Your task to perform on an android device: Open eBay Image 0: 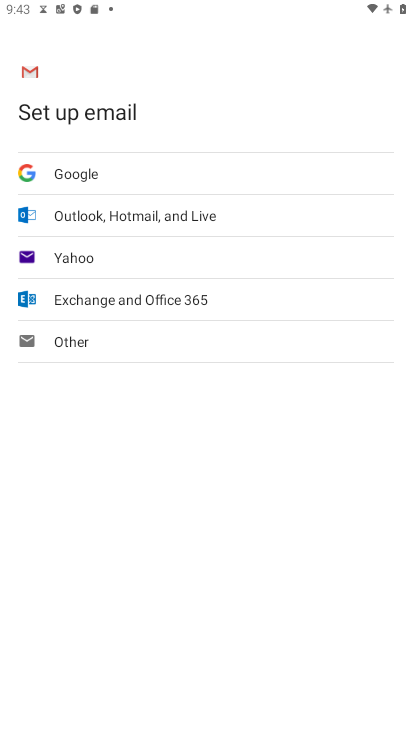
Step 0: press home button
Your task to perform on an android device: Open eBay Image 1: 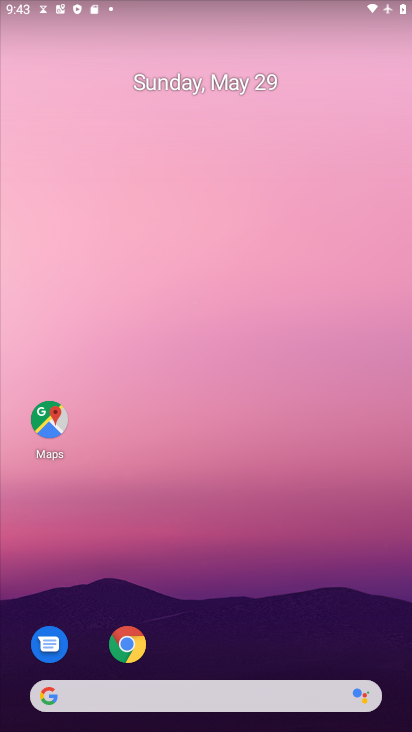
Step 1: click (124, 638)
Your task to perform on an android device: Open eBay Image 2: 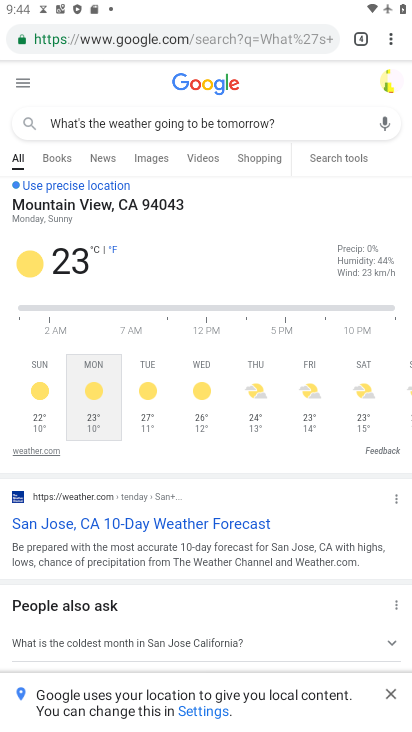
Step 2: click (392, 30)
Your task to perform on an android device: Open eBay Image 3: 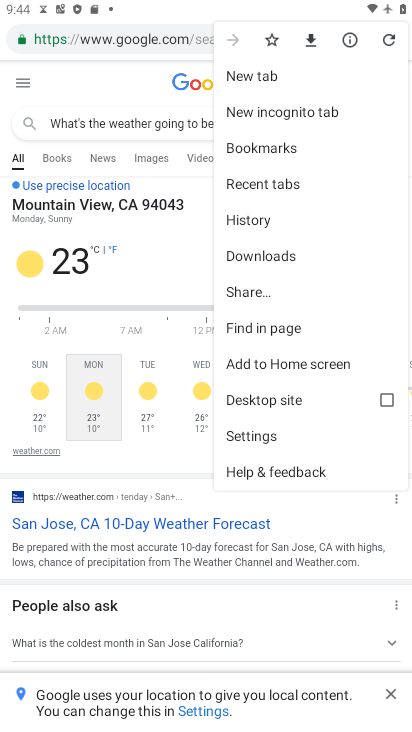
Step 3: click (245, 76)
Your task to perform on an android device: Open eBay Image 4: 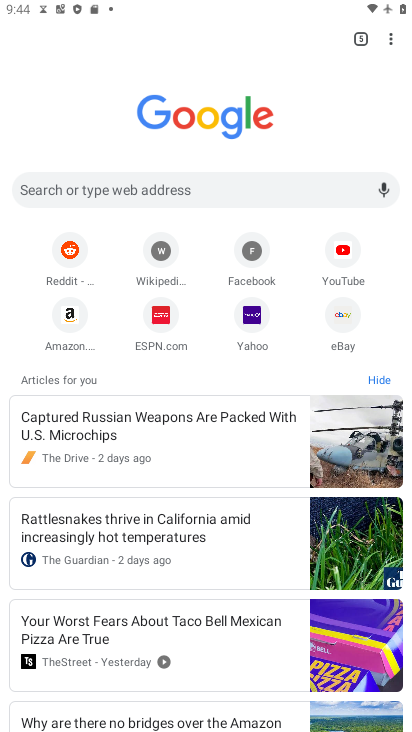
Step 4: click (119, 178)
Your task to perform on an android device: Open eBay Image 5: 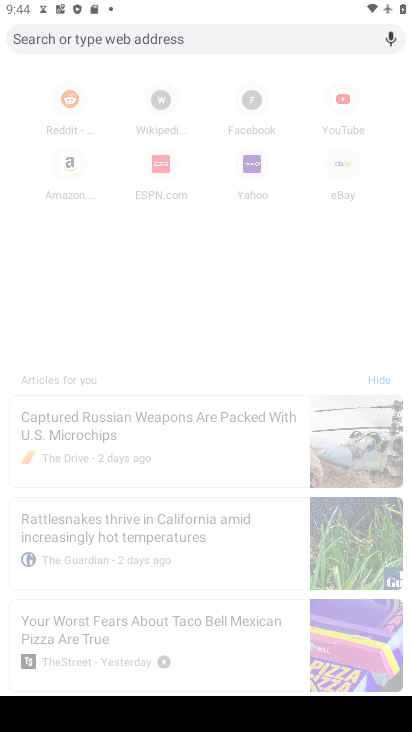
Step 5: type "eBay"
Your task to perform on an android device: Open eBay Image 6: 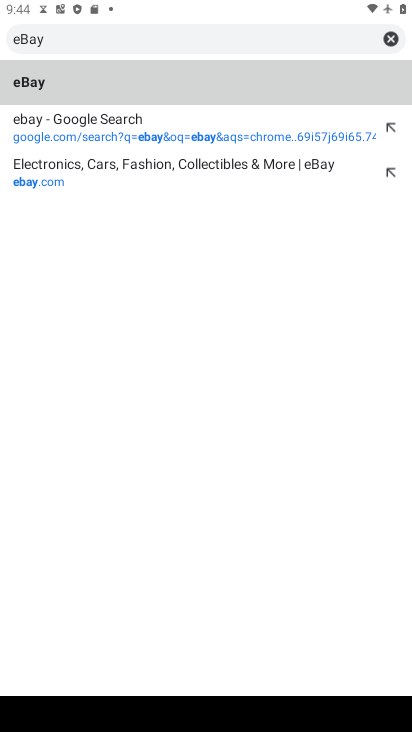
Step 6: click (99, 88)
Your task to perform on an android device: Open eBay Image 7: 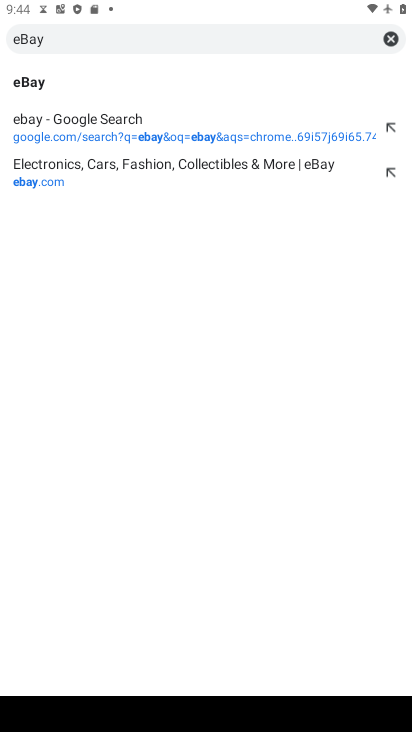
Step 7: click (19, 75)
Your task to perform on an android device: Open eBay Image 8: 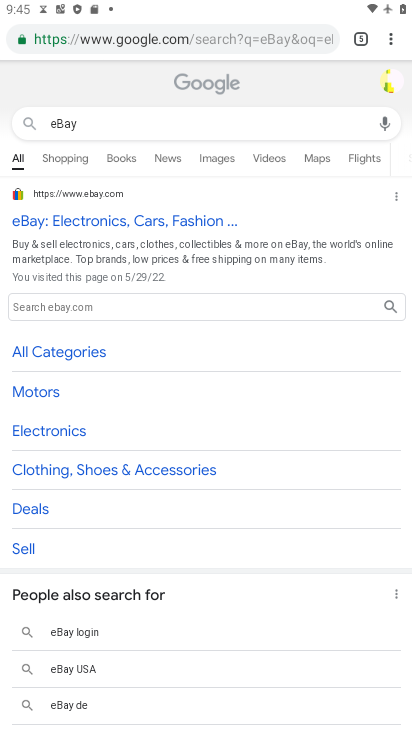
Step 8: task complete